Your task to perform on an android device: Show me productivity apps on the Play Store Image 0: 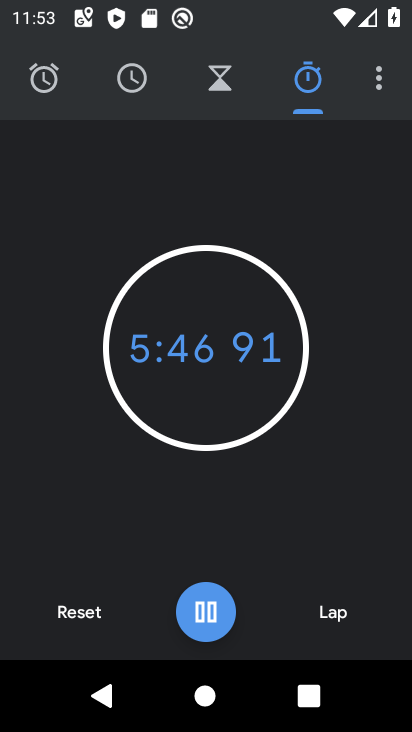
Step 0: click (187, 614)
Your task to perform on an android device: Show me productivity apps on the Play Store Image 1: 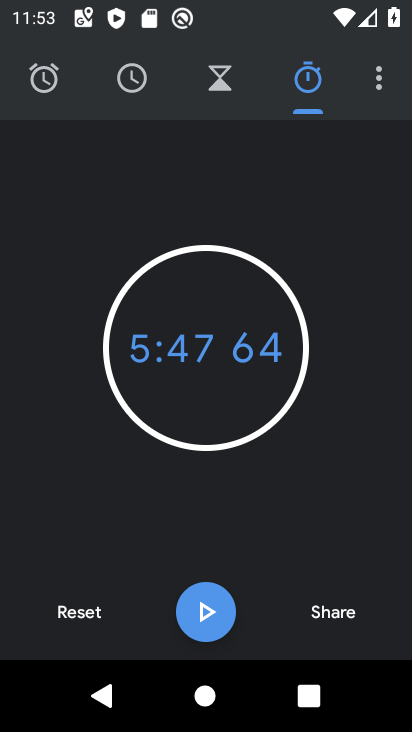
Step 1: press home button
Your task to perform on an android device: Show me productivity apps on the Play Store Image 2: 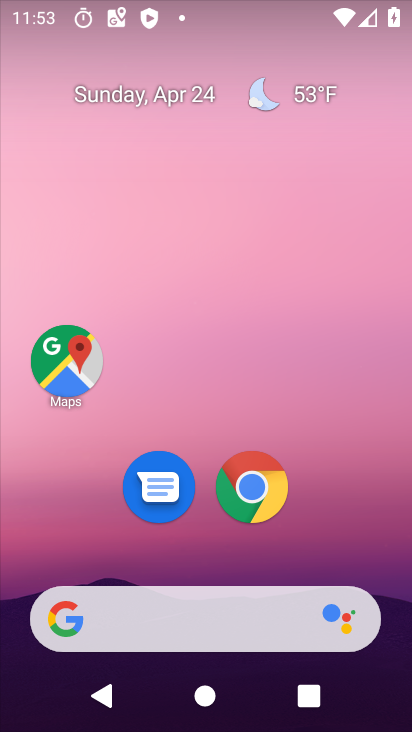
Step 2: drag from (175, 465) to (269, 110)
Your task to perform on an android device: Show me productivity apps on the Play Store Image 3: 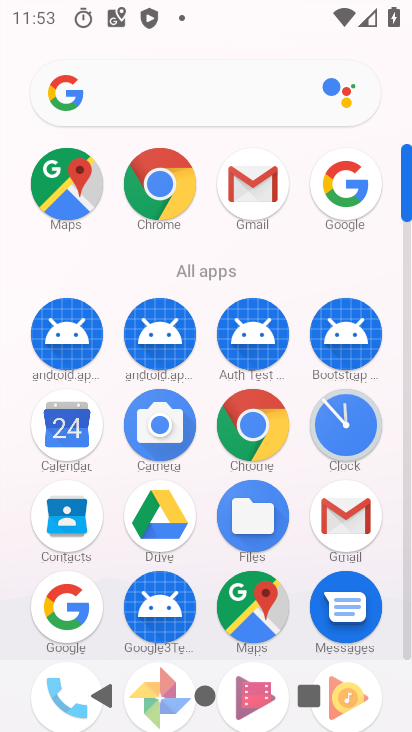
Step 3: drag from (205, 641) to (267, 231)
Your task to perform on an android device: Show me productivity apps on the Play Store Image 4: 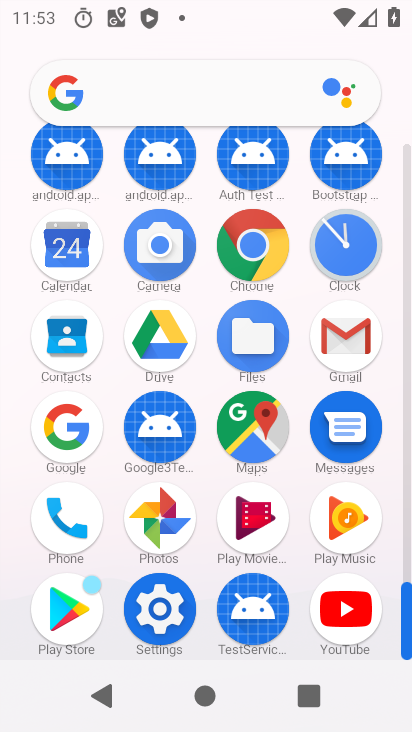
Step 4: click (95, 586)
Your task to perform on an android device: Show me productivity apps on the Play Store Image 5: 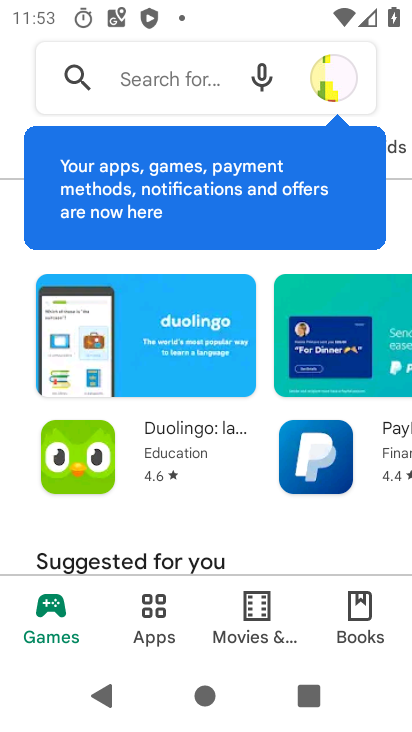
Step 5: click (148, 607)
Your task to perform on an android device: Show me productivity apps on the Play Store Image 6: 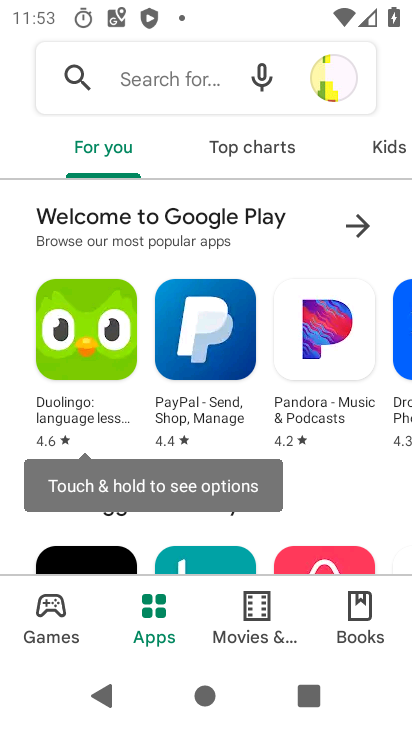
Step 6: drag from (325, 152) to (24, 146)
Your task to perform on an android device: Show me productivity apps on the Play Store Image 7: 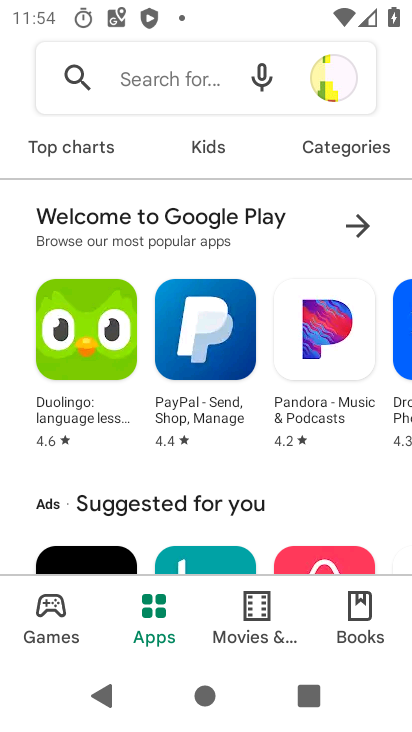
Step 7: click (340, 143)
Your task to perform on an android device: Show me productivity apps on the Play Store Image 8: 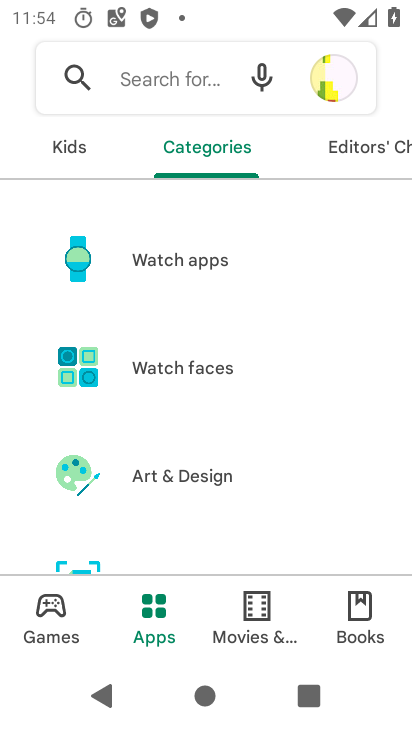
Step 8: drag from (160, 493) to (221, 7)
Your task to perform on an android device: Show me productivity apps on the Play Store Image 9: 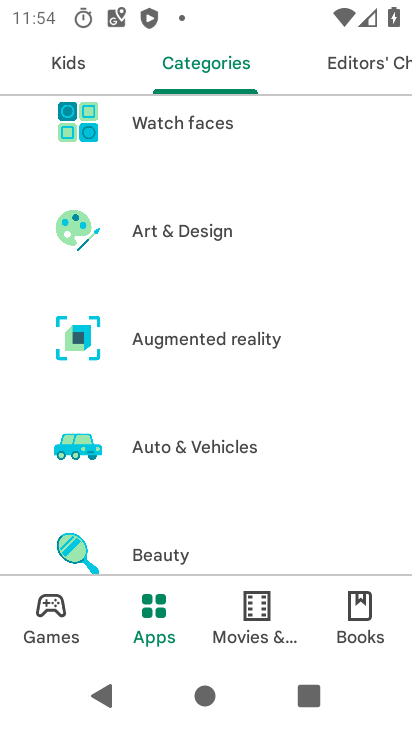
Step 9: drag from (201, 495) to (274, 26)
Your task to perform on an android device: Show me productivity apps on the Play Store Image 10: 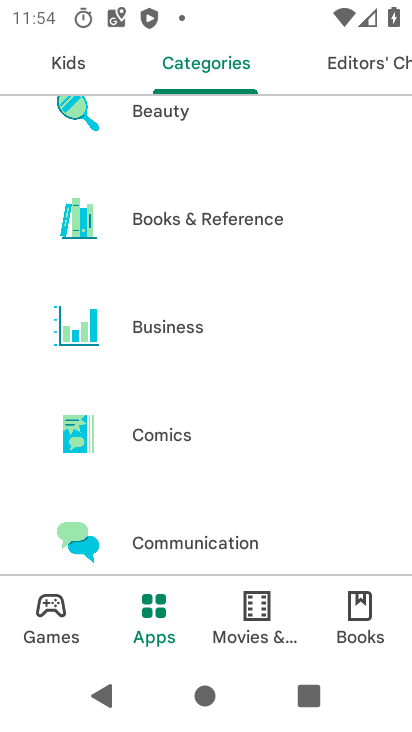
Step 10: drag from (185, 551) to (271, 23)
Your task to perform on an android device: Show me productivity apps on the Play Store Image 11: 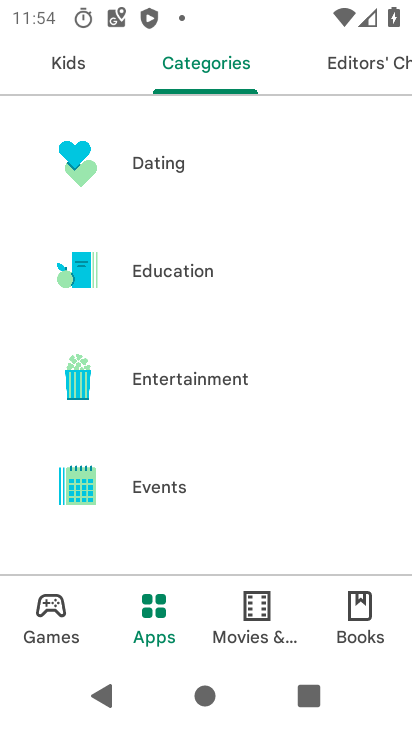
Step 11: drag from (202, 476) to (266, 38)
Your task to perform on an android device: Show me productivity apps on the Play Store Image 12: 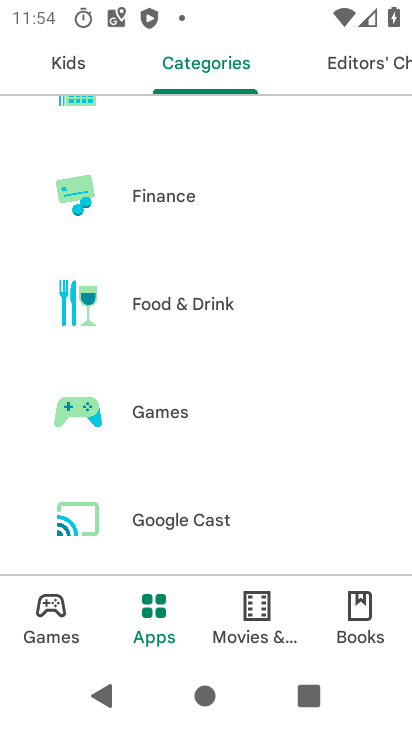
Step 12: drag from (177, 540) to (287, 184)
Your task to perform on an android device: Show me productivity apps on the Play Store Image 13: 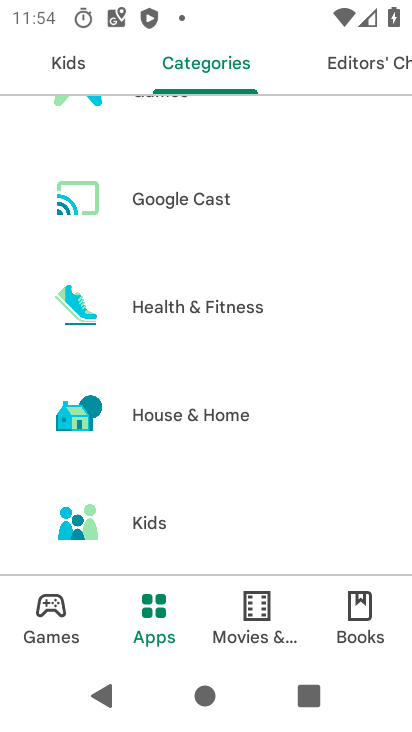
Step 13: drag from (206, 508) to (284, 108)
Your task to perform on an android device: Show me productivity apps on the Play Store Image 14: 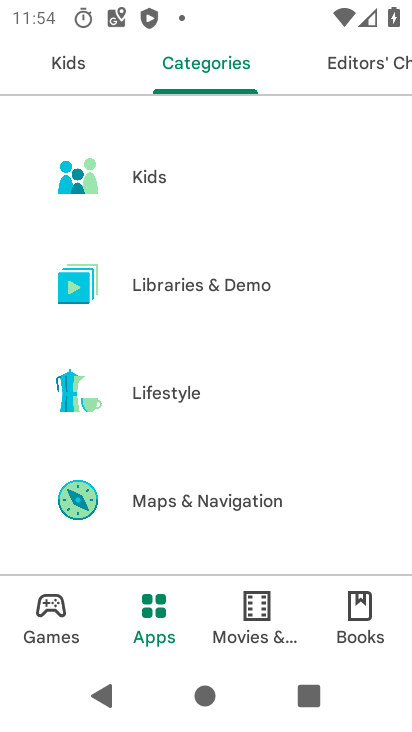
Step 14: drag from (194, 516) to (269, 56)
Your task to perform on an android device: Show me productivity apps on the Play Store Image 15: 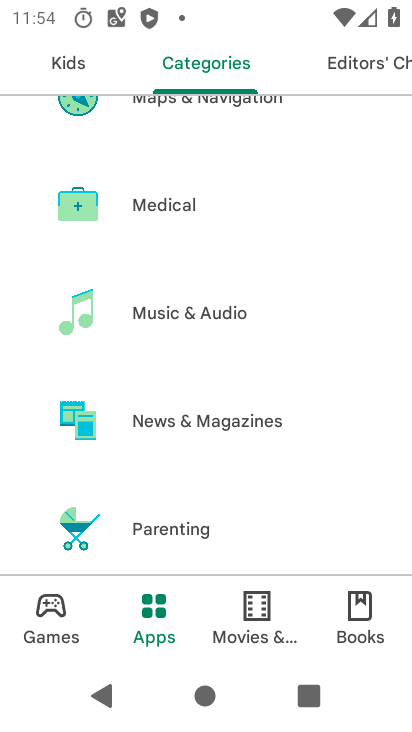
Step 15: drag from (166, 546) to (264, 87)
Your task to perform on an android device: Show me productivity apps on the Play Store Image 16: 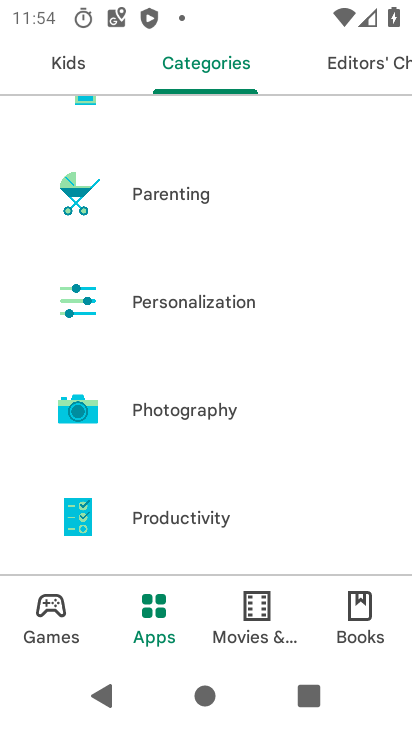
Step 16: click (175, 516)
Your task to perform on an android device: Show me productivity apps on the Play Store Image 17: 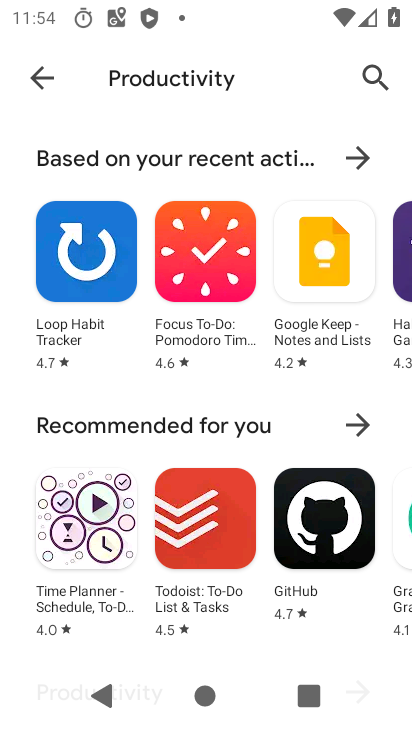
Step 17: task complete